Your task to perform on an android device: turn on improve location accuracy Image 0: 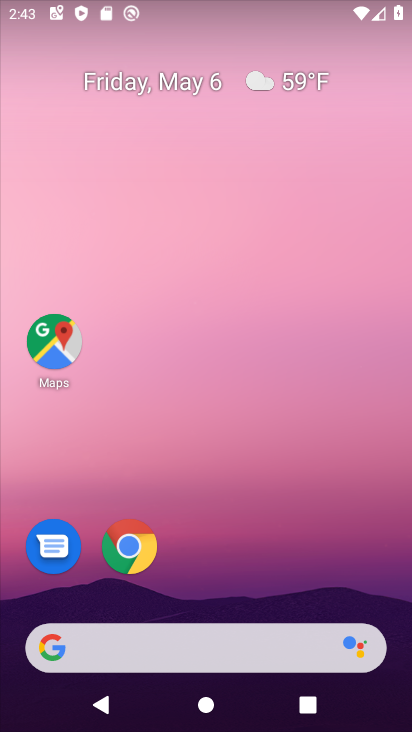
Step 0: drag from (243, 591) to (248, 151)
Your task to perform on an android device: turn on improve location accuracy Image 1: 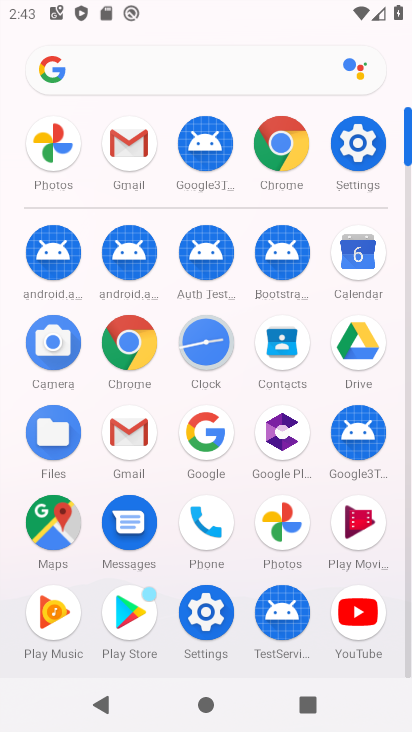
Step 1: click (364, 148)
Your task to perform on an android device: turn on improve location accuracy Image 2: 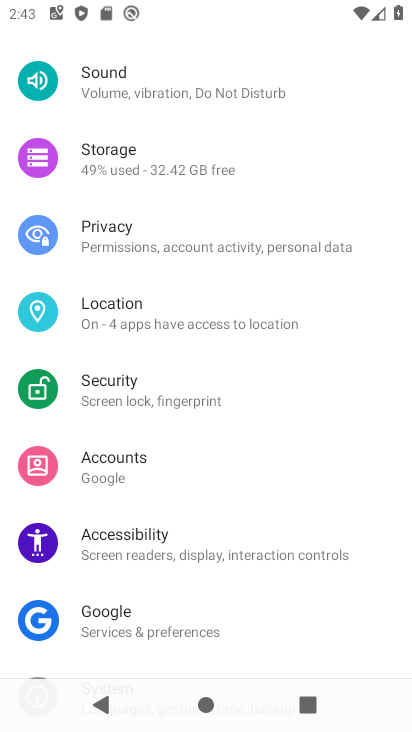
Step 2: click (224, 324)
Your task to perform on an android device: turn on improve location accuracy Image 3: 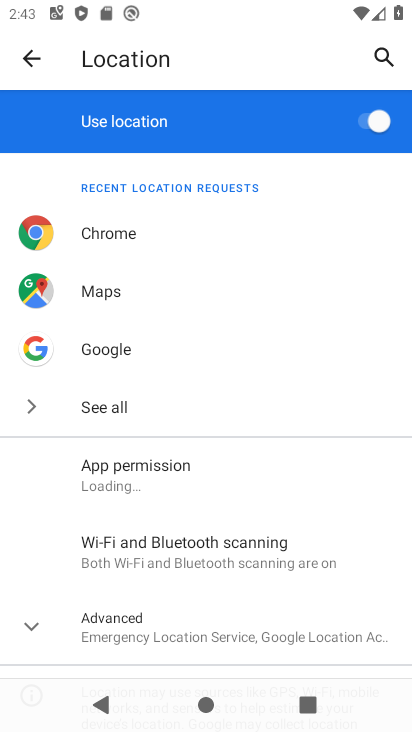
Step 3: drag from (251, 504) to (250, 346)
Your task to perform on an android device: turn on improve location accuracy Image 4: 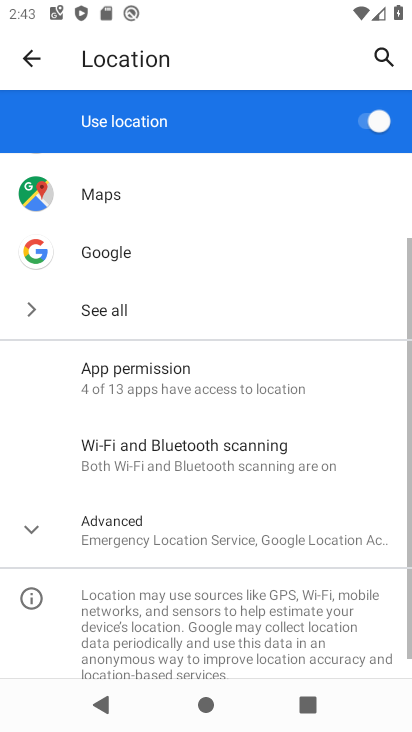
Step 4: click (227, 527)
Your task to perform on an android device: turn on improve location accuracy Image 5: 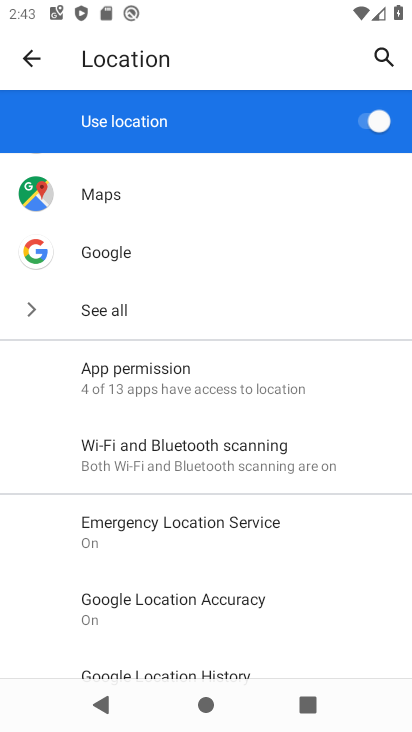
Step 5: task complete